Your task to perform on an android device: check the backup settings in the google photos Image 0: 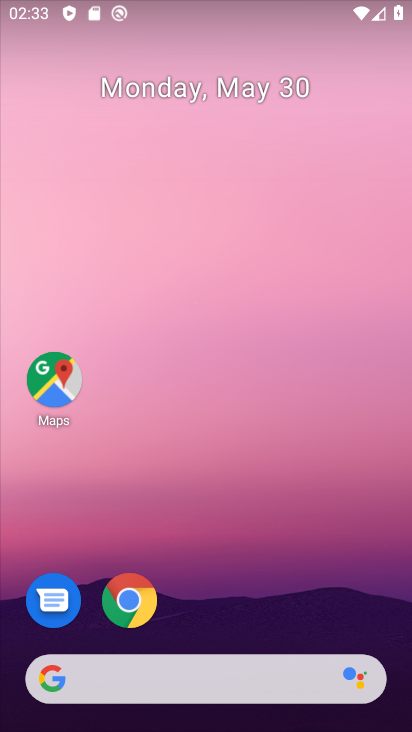
Step 0: drag from (231, 597) to (267, 10)
Your task to perform on an android device: check the backup settings in the google photos Image 1: 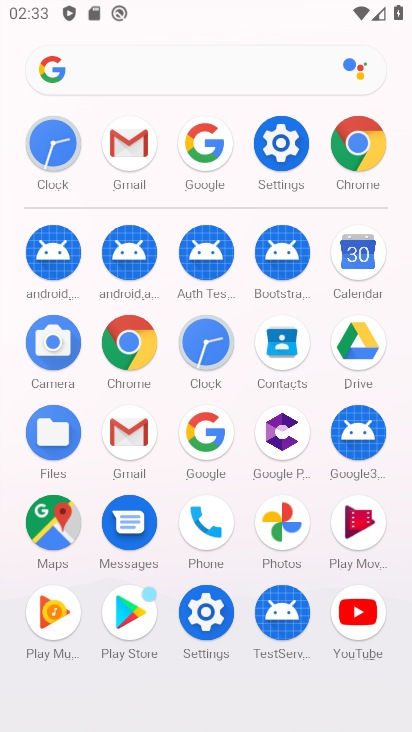
Step 1: click (281, 519)
Your task to perform on an android device: check the backup settings in the google photos Image 2: 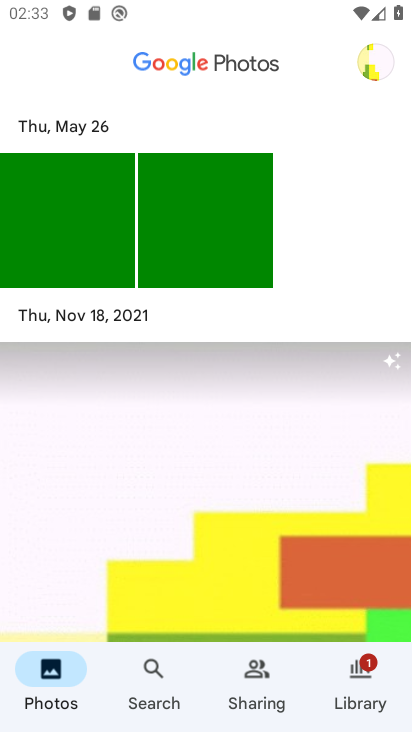
Step 2: click (370, 74)
Your task to perform on an android device: check the backup settings in the google photos Image 3: 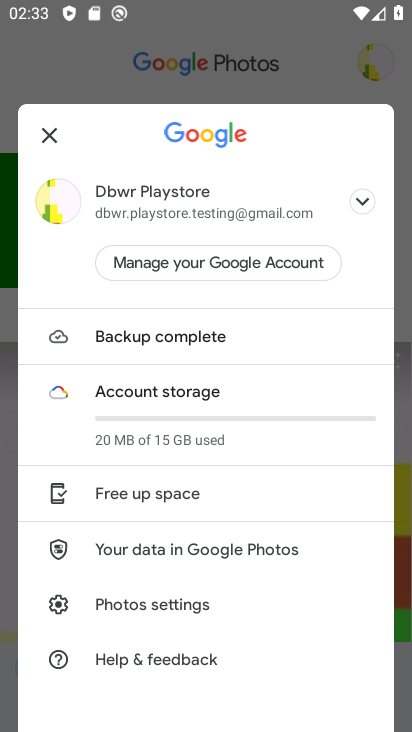
Step 3: click (129, 610)
Your task to perform on an android device: check the backup settings in the google photos Image 4: 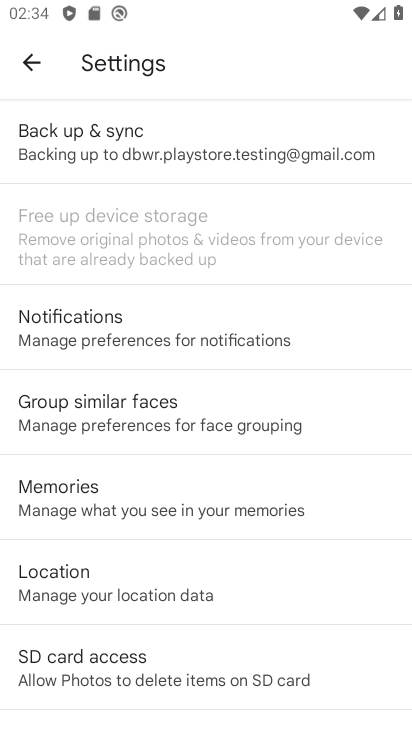
Step 4: click (160, 157)
Your task to perform on an android device: check the backup settings in the google photos Image 5: 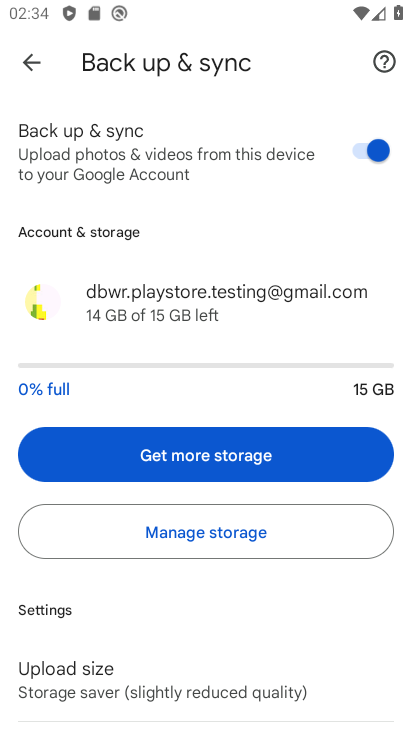
Step 5: task complete